Your task to perform on an android device: Go to location settings Image 0: 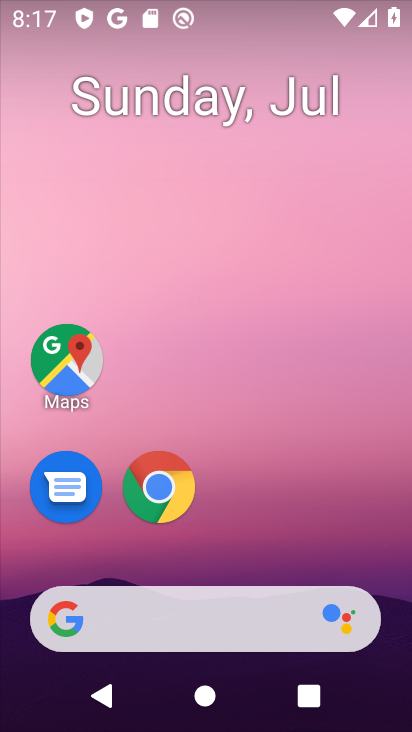
Step 0: drag from (227, 518) to (344, 15)
Your task to perform on an android device: Go to location settings Image 1: 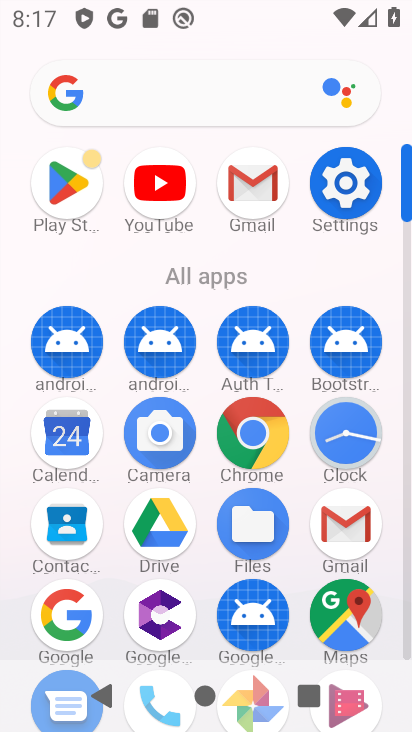
Step 1: click (347, 186)
Your task to perform on an android device: Go to location settings Image 2: 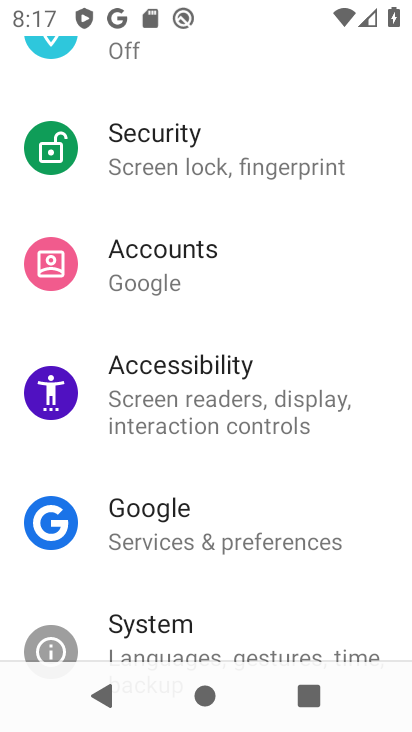
Step 2: drag from (269, 165) to (215, 601)
Your task to perform on an android device: Go to location settings Image 3: 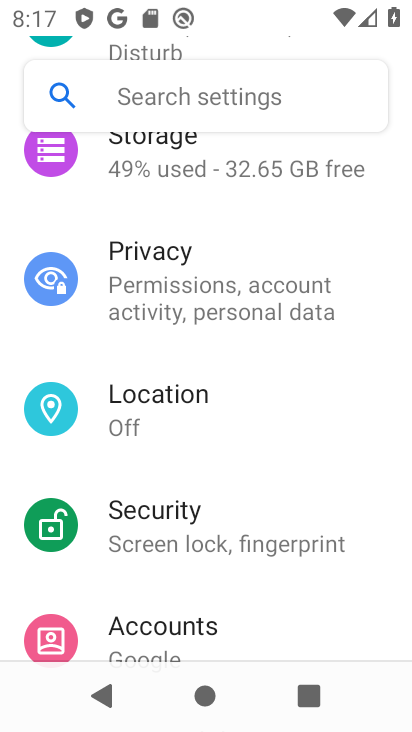
Step 3: click (122, 421)
Your task to perform on an android device: Go to location settings Image 4: 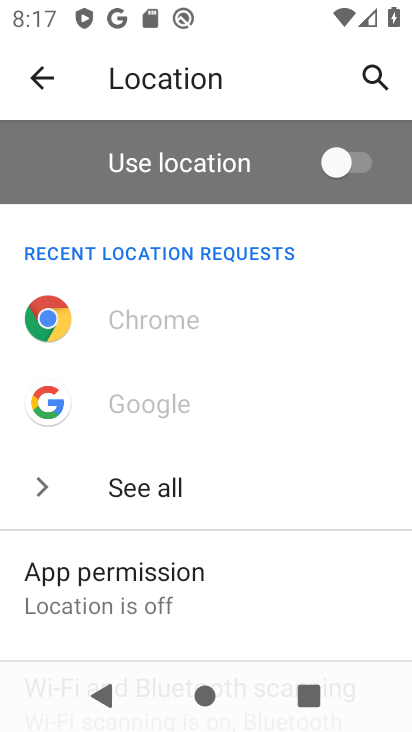
Step 4: task complete